Your task to perform on an android device: Search for seafood restaurants on Google Maps Image 0: 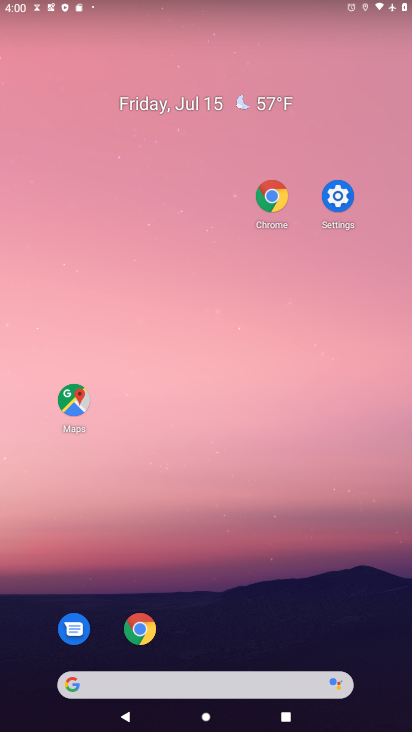
Step 0: drag from (269, 693) to (286, 4)
Your task to perform on an android device: Search for seafood restaurants on Google Maps Image 1: 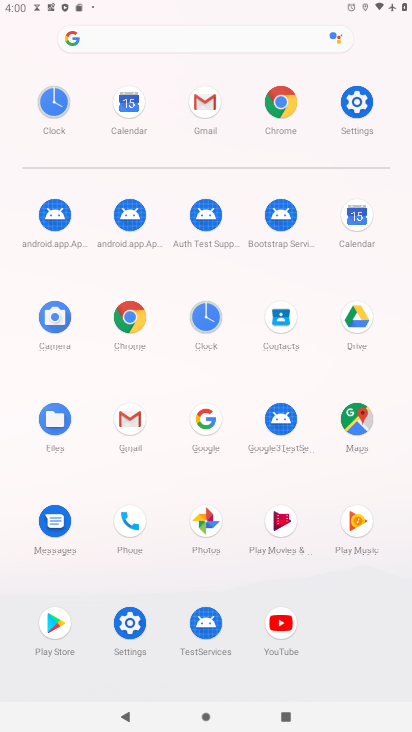
Step 1: click (361, 411)
Your task to perform on an android device: Search for seafood restaurants on Google Maps Image 2: 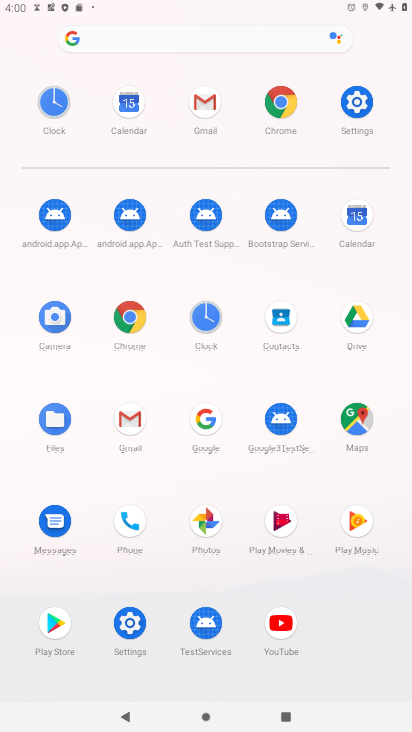
Step 2: click (362, 412)
Your task to perform on an android device: Search for seafood restaurants on Google Maps Image 3: 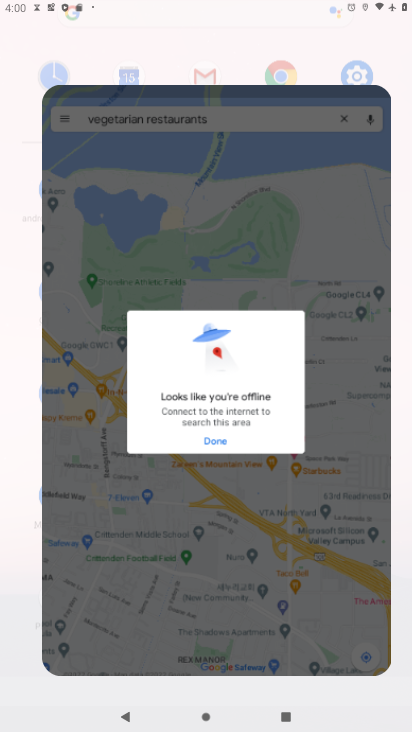
Step 3: click (362, 412)
Your task to perform on an android device: Search for seafood restaurants on Google Maps Image 4: 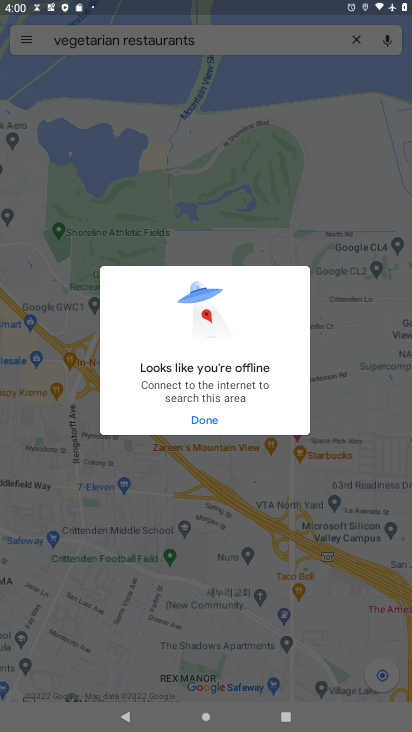
Step 4: task complete